Your task to perform on an android device: clear history in the chrome app Image 0: 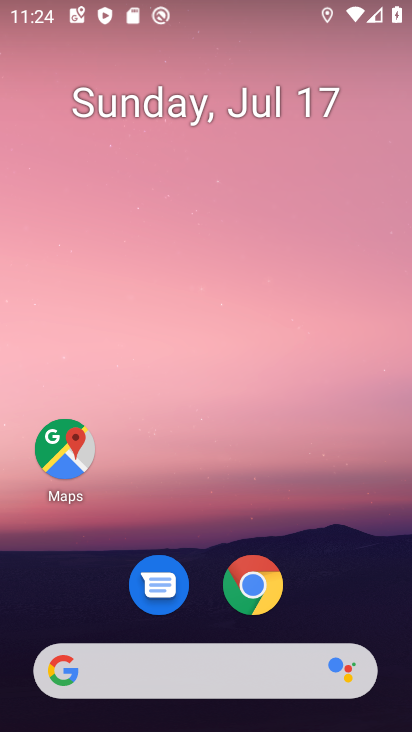
Step 0: click (250, 577)
Your task to perform on an android device: clear history in the chrome app Image 1: 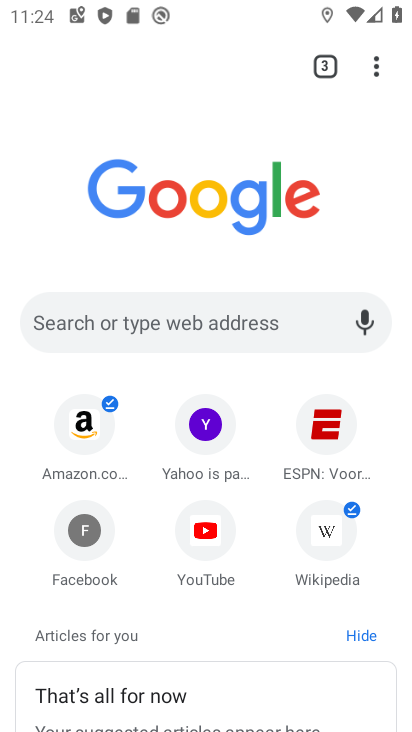
Step 1: click (379, 70)
Your task to perform on an android device: clear history in the chrome app Image 2: 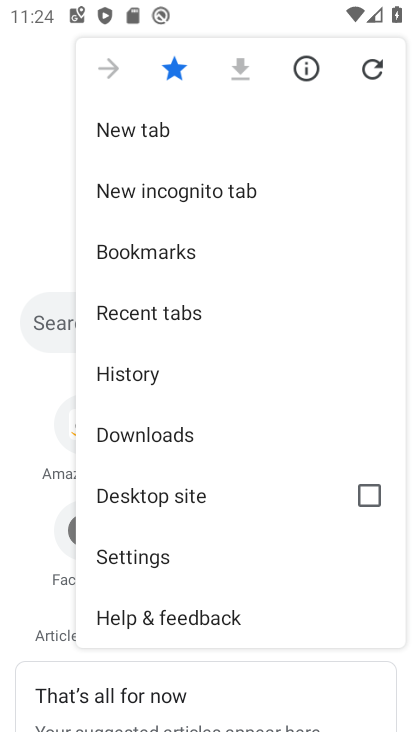
Step 2: click (128, 372)
Your task to perform on an android device: clear history in the chrome app Image 3: 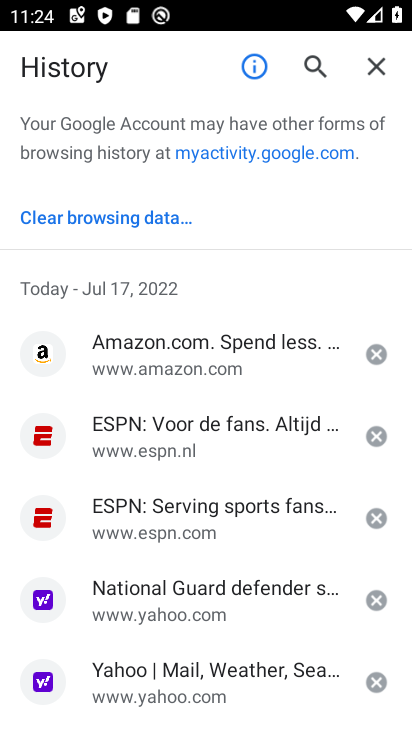
Step 3: click (137, 210)
Your task to perform on an android device: clear history in the chrome app Image 4: 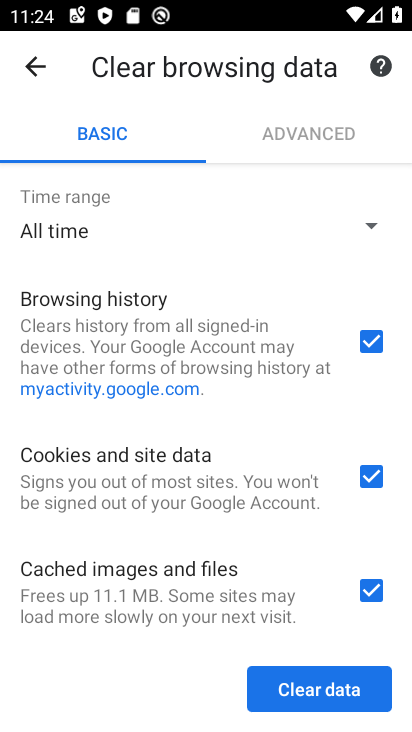
Step 4: click (320, 689)
Your task to perform on an android device: clear history in the chrome app Image 5: 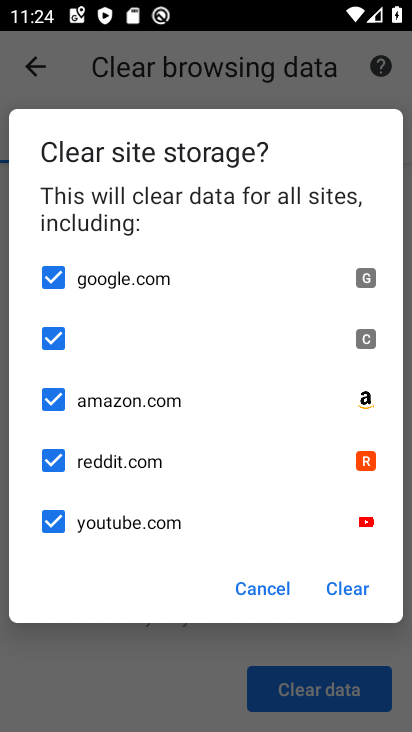
Step 5: click (364, 584)
Your task to perform on an android device: clear history in the chrome app Image 6: 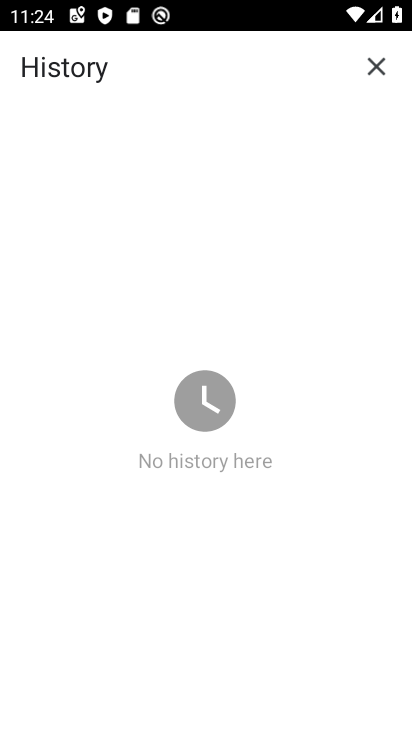
Step 6: task complete